Your task to perform on an android device: open app "Google Chrome" Image 0: 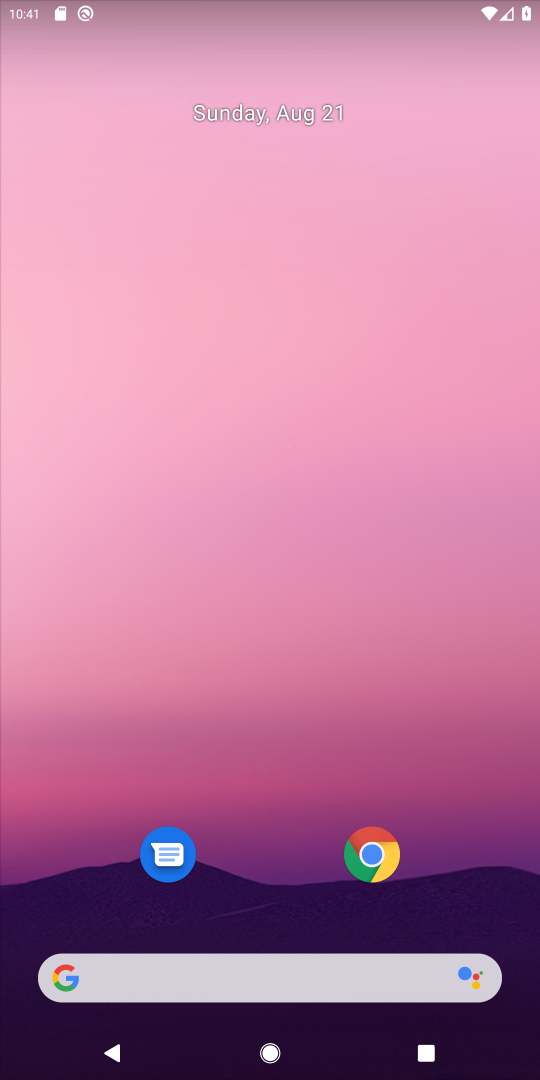
Step 0: click (373, 854)
Your task to perform on an android device: open app "Google Chrome" Image 1: 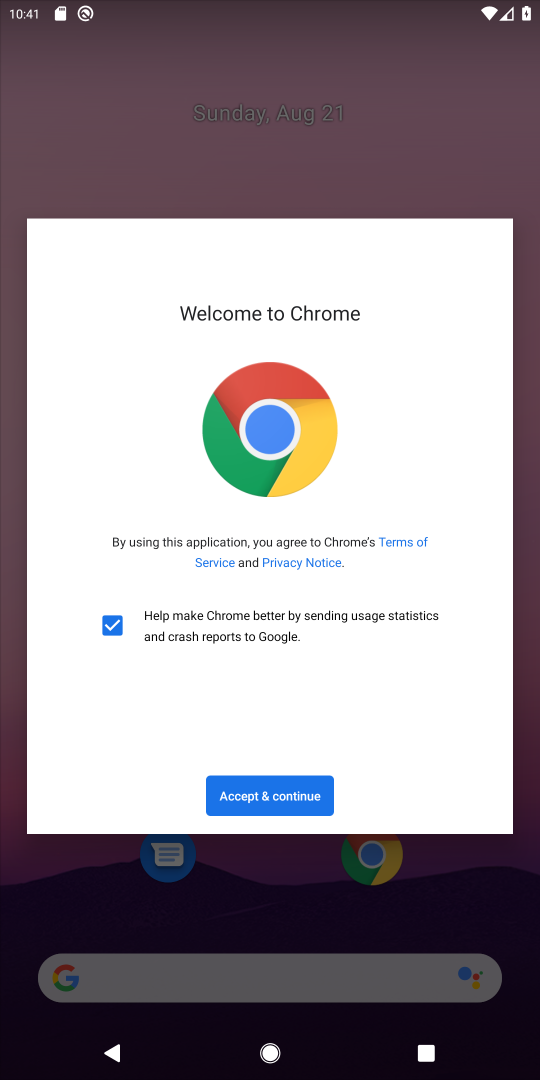
Step 1: task complete